Your task to perform on an android device: turn off priority inbox in the gmail app Image 0: 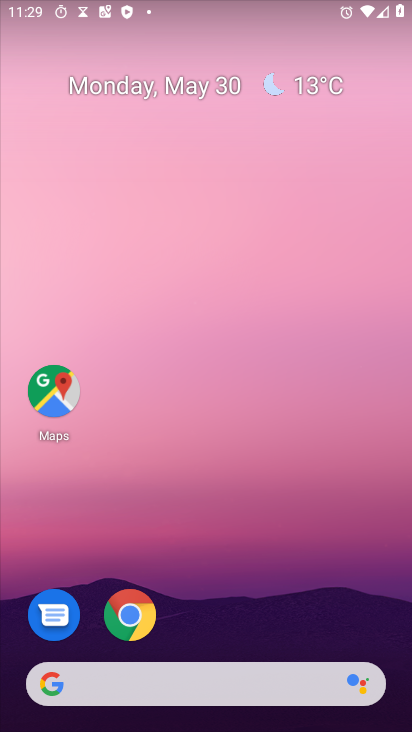
Step 0: drag from (339, 478) to (289, 46)
Your task to perform on an android device: turn off priority inbox in the gmail app Image 1: 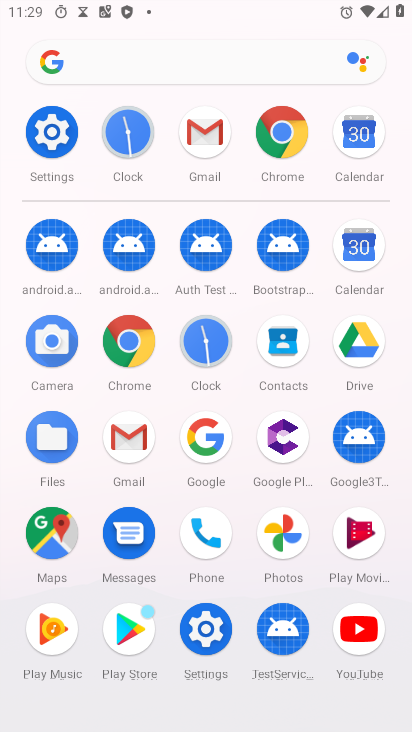
Step 1: click (204, 139)
Your task to perform on an android device: turn off priority inbox in the gmail app Image 2: 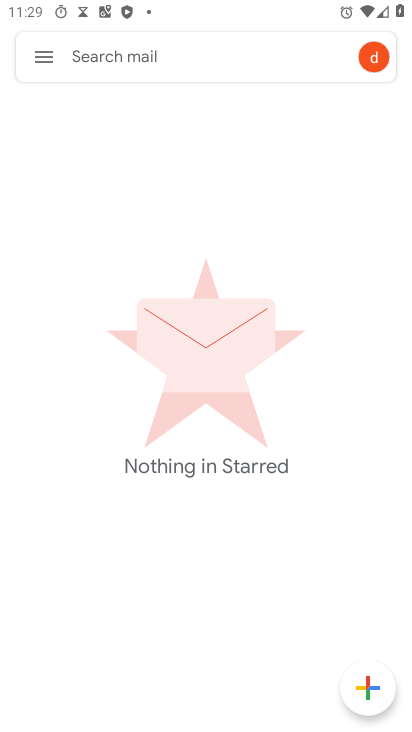
Step 2: click (41, 59)
Your task to perform on an android device: turn off priority inbox in the gmail app Image 3: 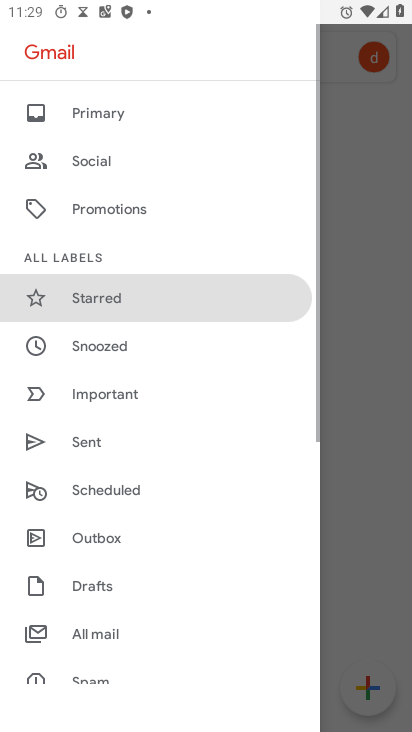
Step 3: drag from (113, 615) to (183, 184)
Your task to perform on an android device: turn off priority inbox in the gmail app Image 4: 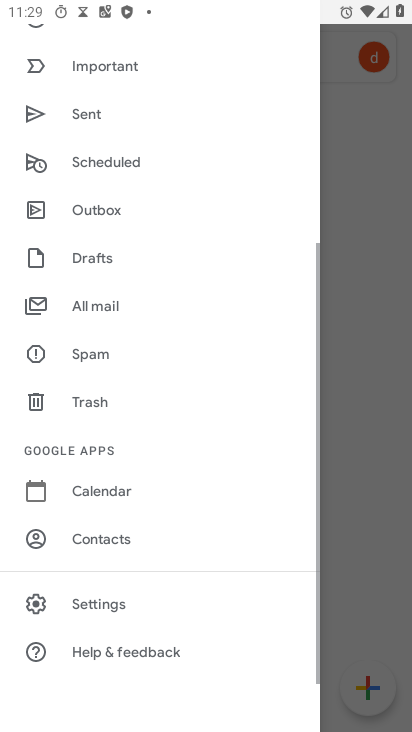
Step 4: click (90, 610)
Your task to perform on an android device: turn off priority inbox in the gmail app Image 5: 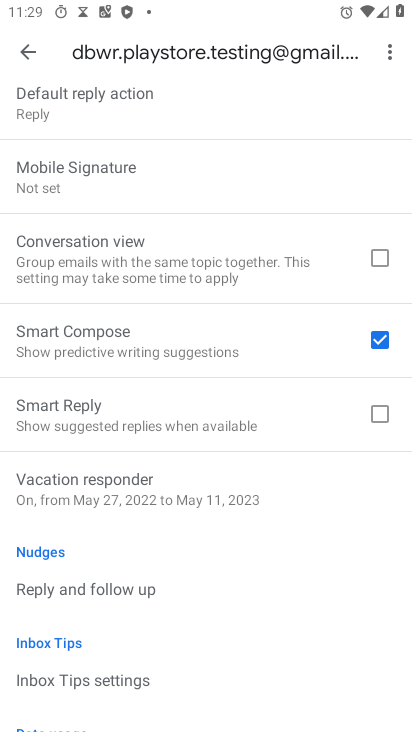
Step 5: drag from (92, 265) to (123, 565)
Your task to perform on an android device: turn off priority inbox in the gmail app Image 6: 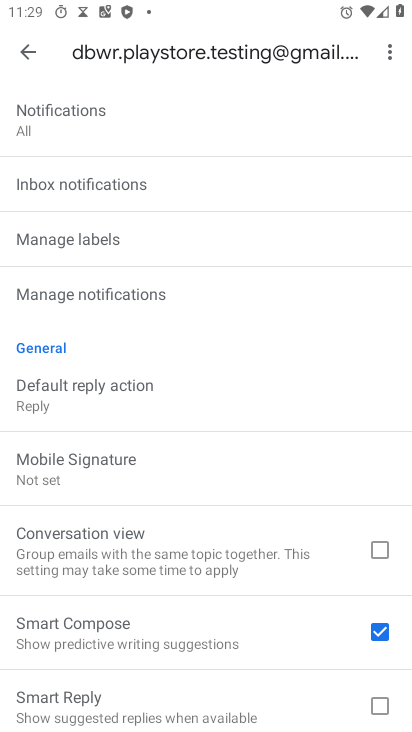
Step 6: drag from (97, 210) to (84, 572)
Your task to perform on an android device: turn off priority inbox in the gmail app Image 7: 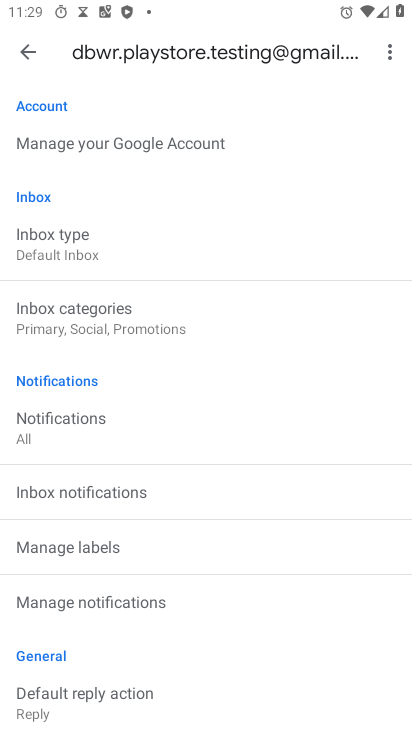
Step 7: click (49, 256)
Your task to perform on an android device: turn off priority inbox in the gmail app Image 8: 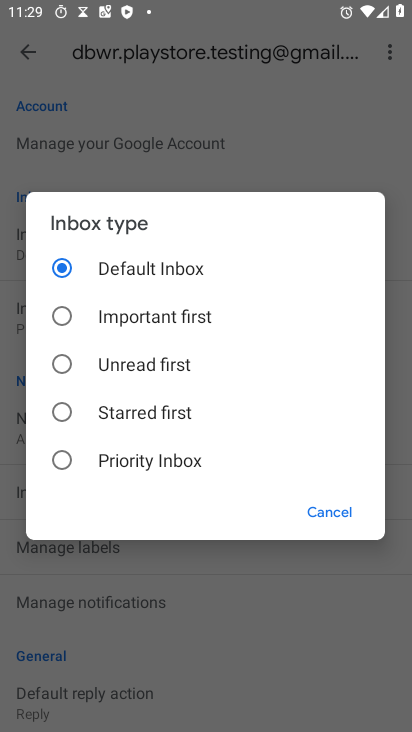
Step 8: task complete